Your task to perform on an android device: open app "Messages" Image 0: 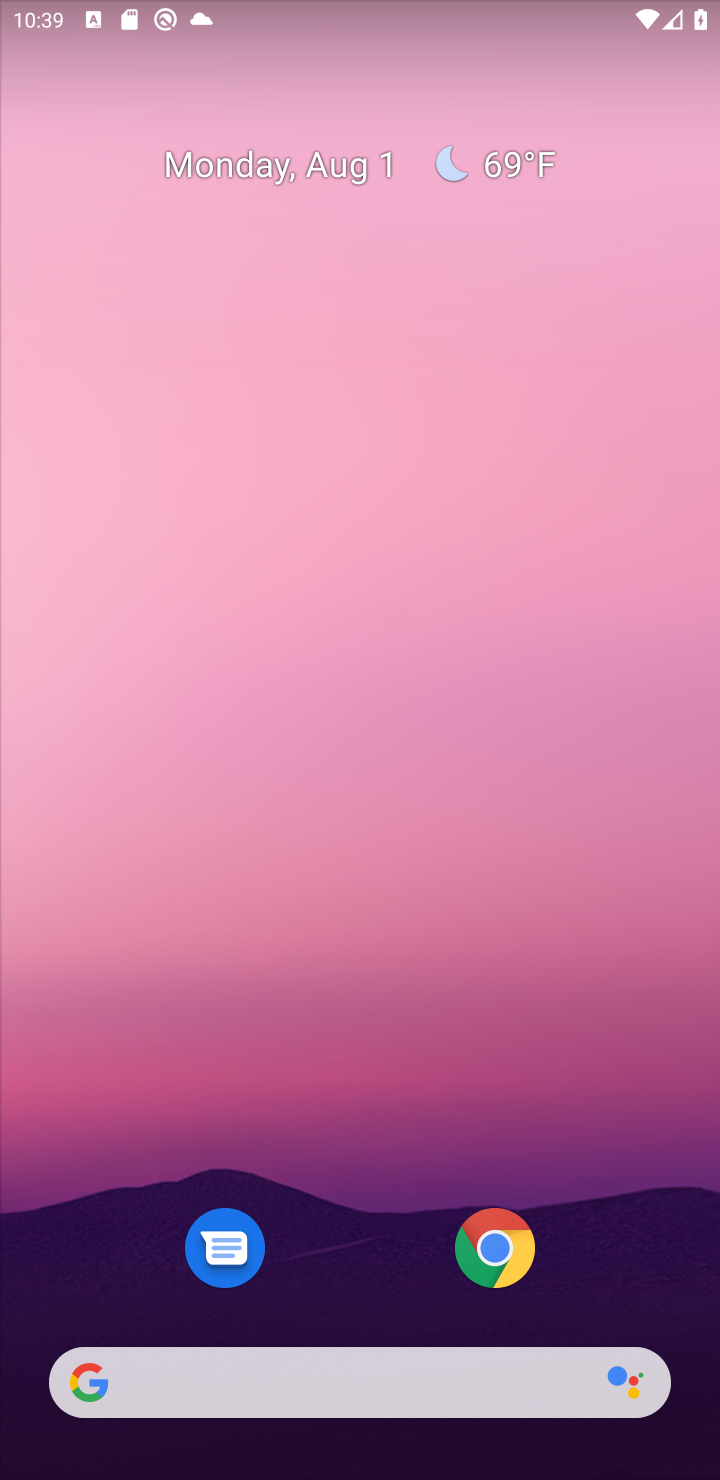
Step 0: drag from (432, 749) to (476, 302)
Your task to perform on an android device: open app "Messages" Image 1: 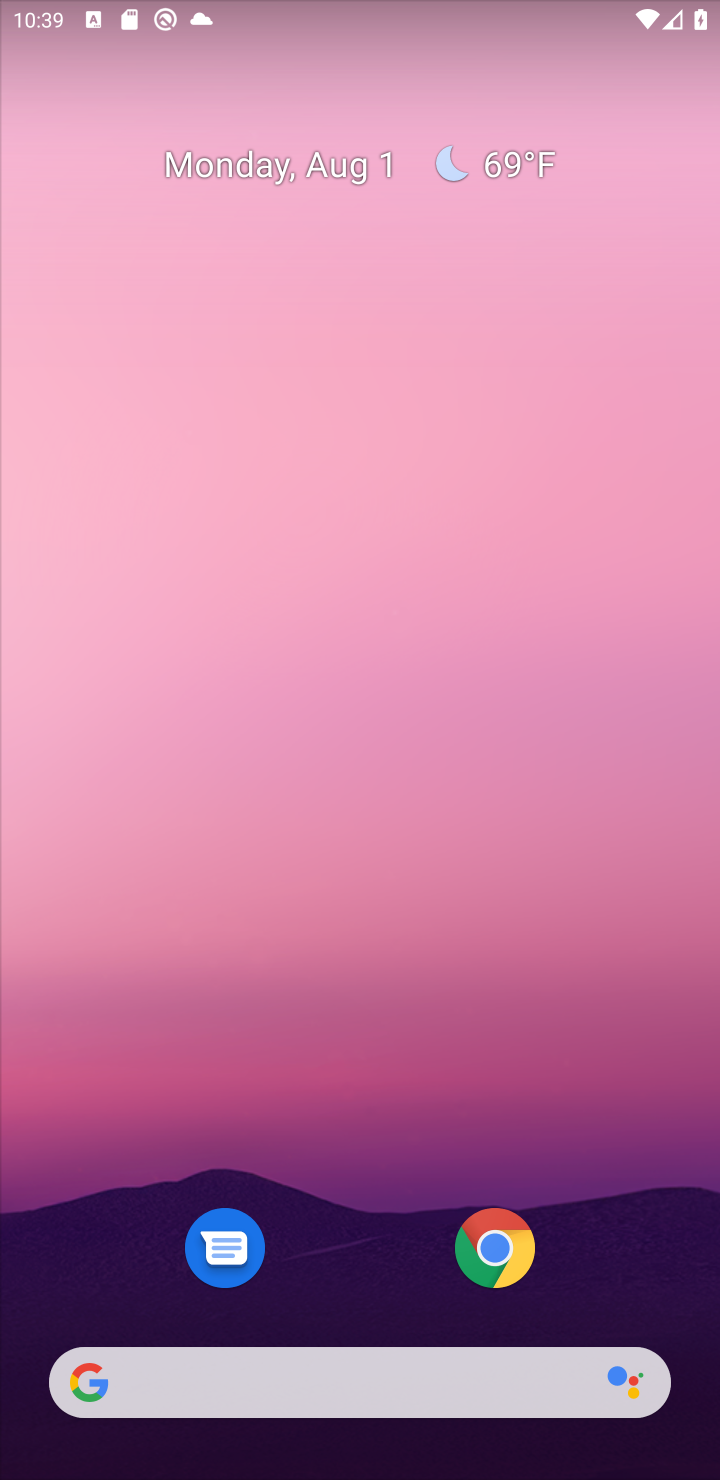
Step 1: drag from (327, 1268) to (355, 312)
Your task to perform on an android device: open app "Messages" Image 2: 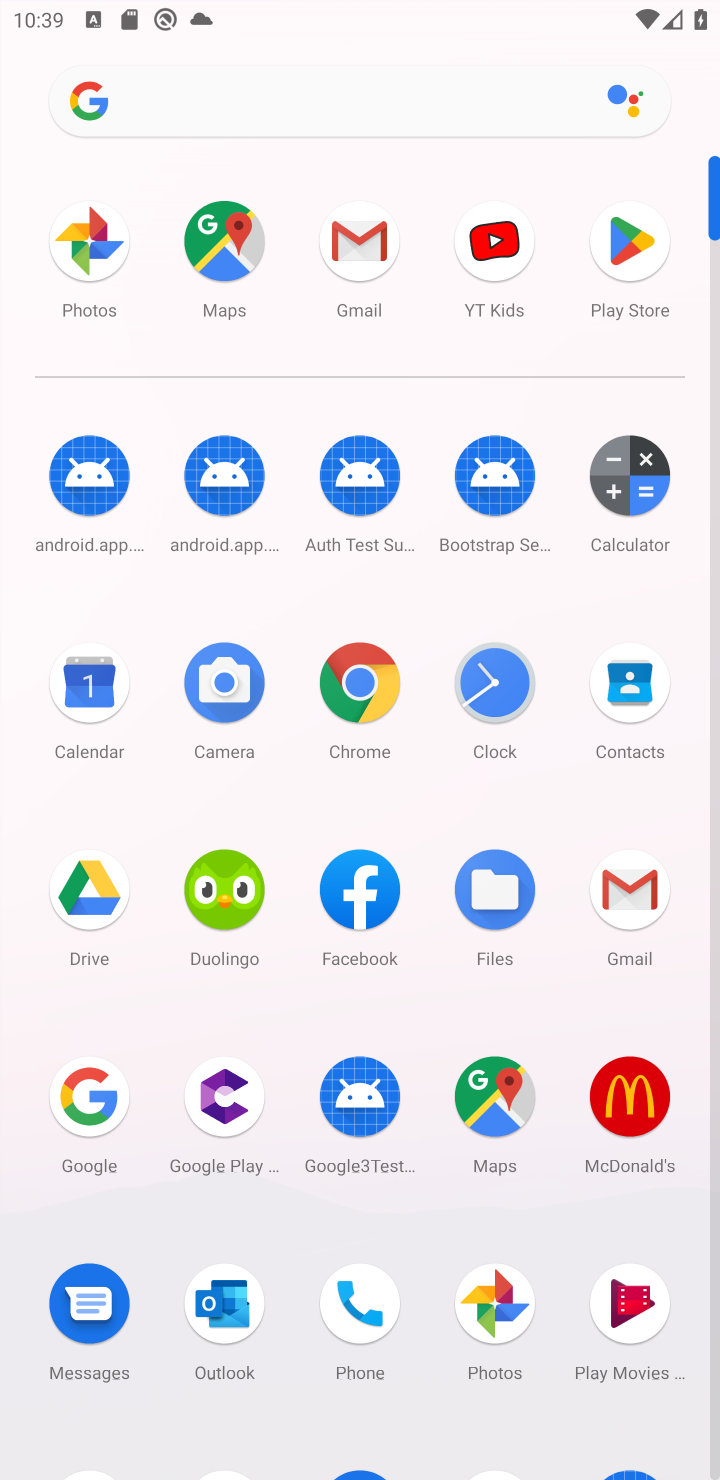
Step 2: click (636, 236)
Your task to perform on an android device: open app "Messages" Image 3: 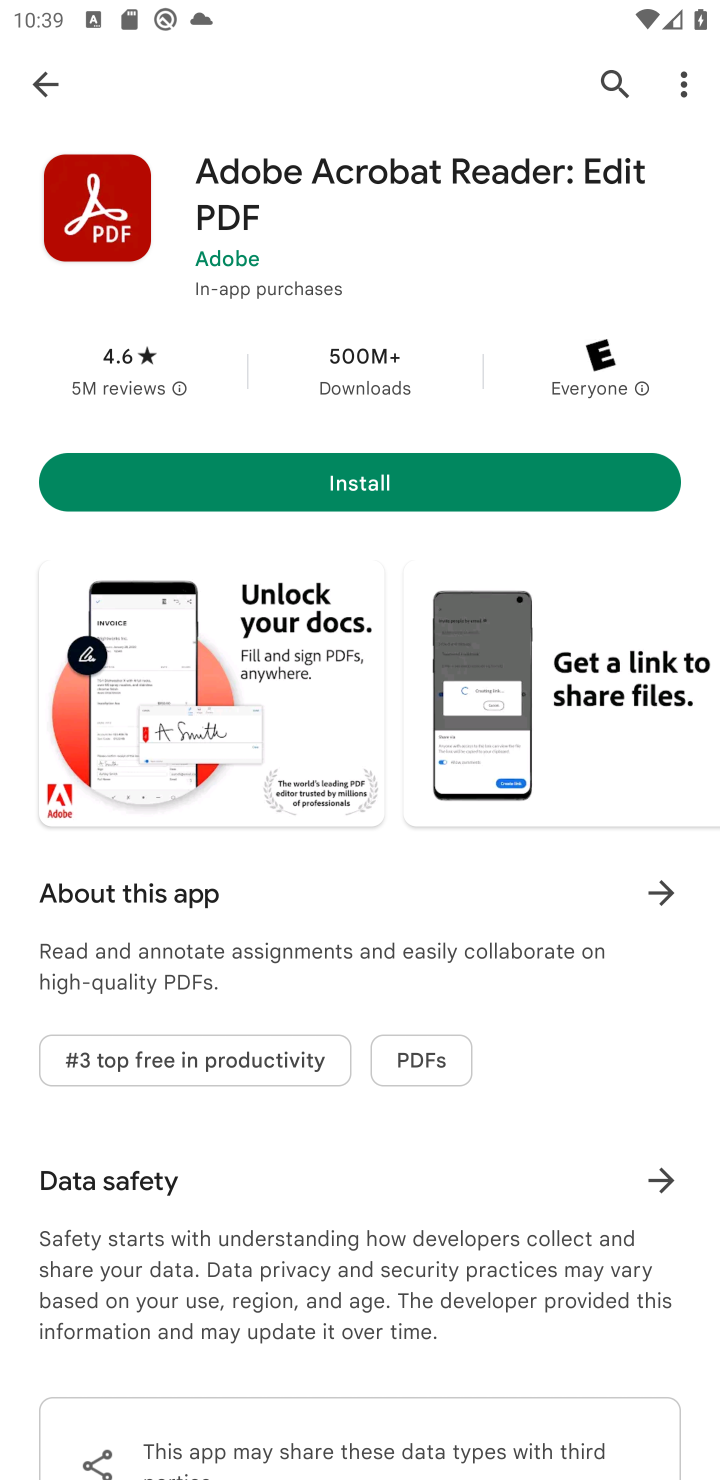
Step 3: click (611, 86)
Your task to perform on an android device: open app "Messages" Image 4: 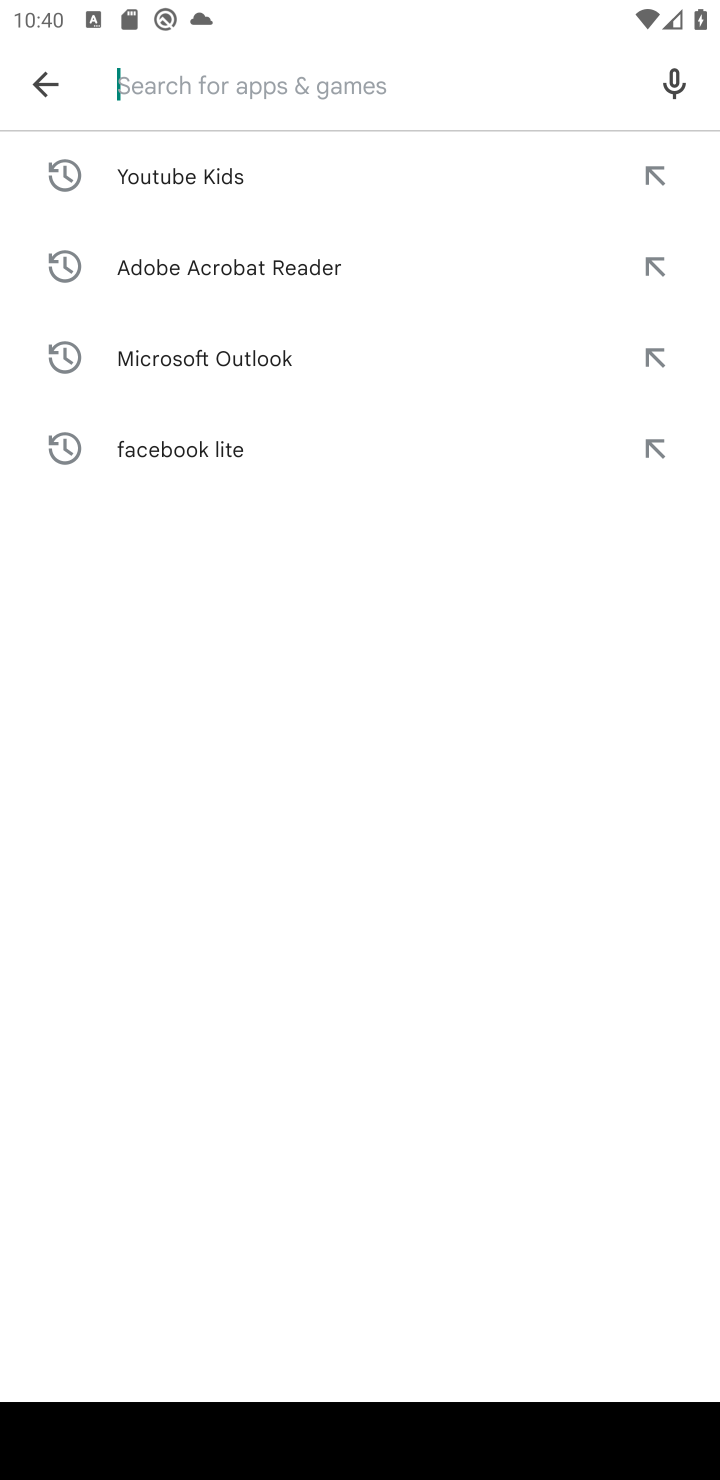
Step 4: type "Messages"
Your task to perform on an android device: open app "Messages" Image 5: 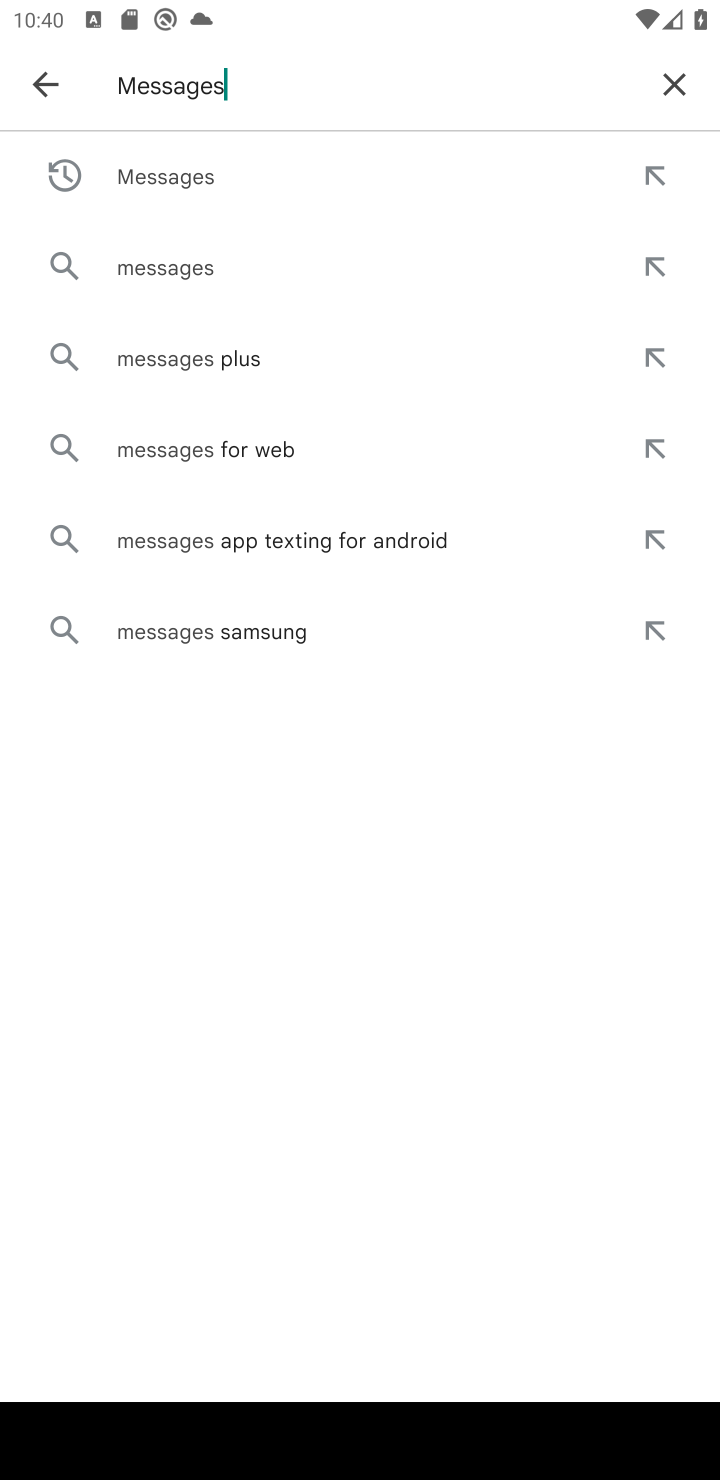
Step 5: click (420, 184)
Your task to perform on an android device: open app "Messages" Image 6: 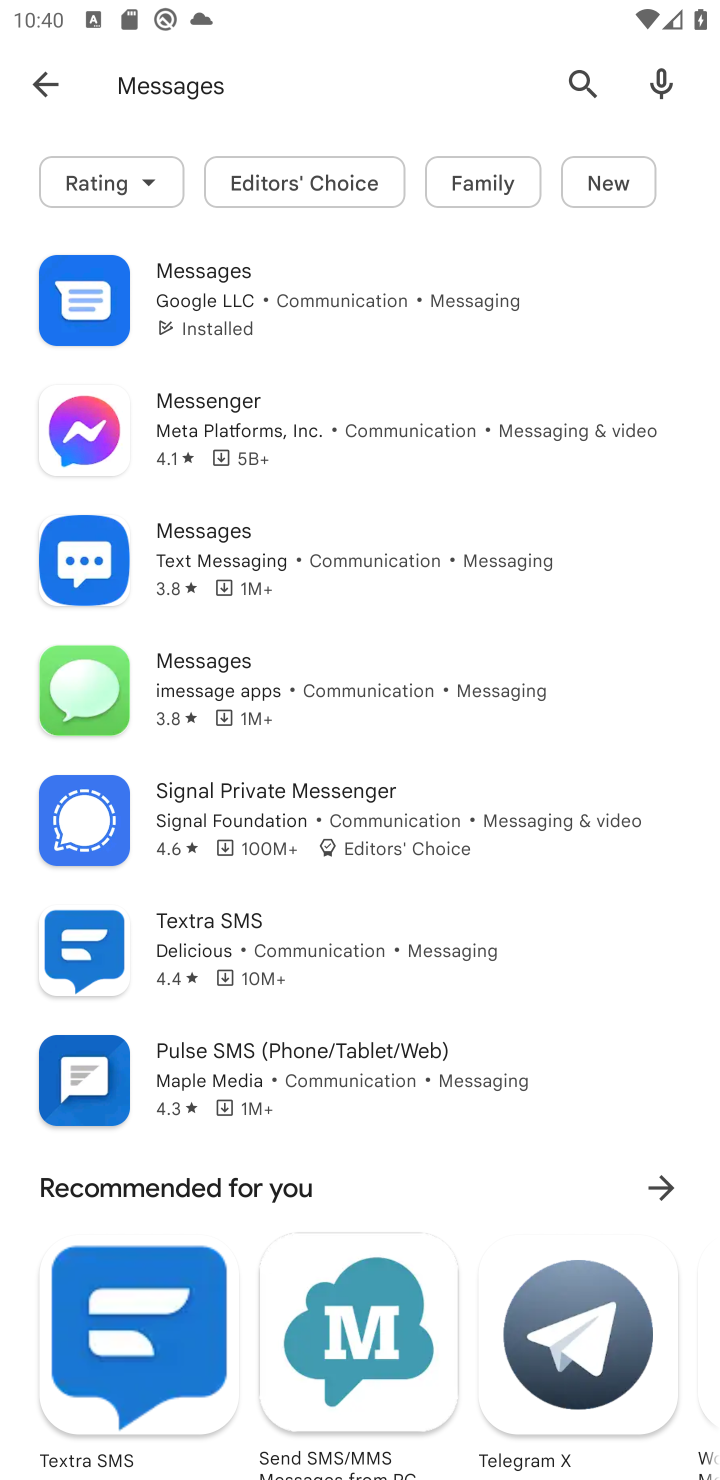
Step 6: click (241, 249)
Your task to perform on an android device: open app "Messages" Image 7: 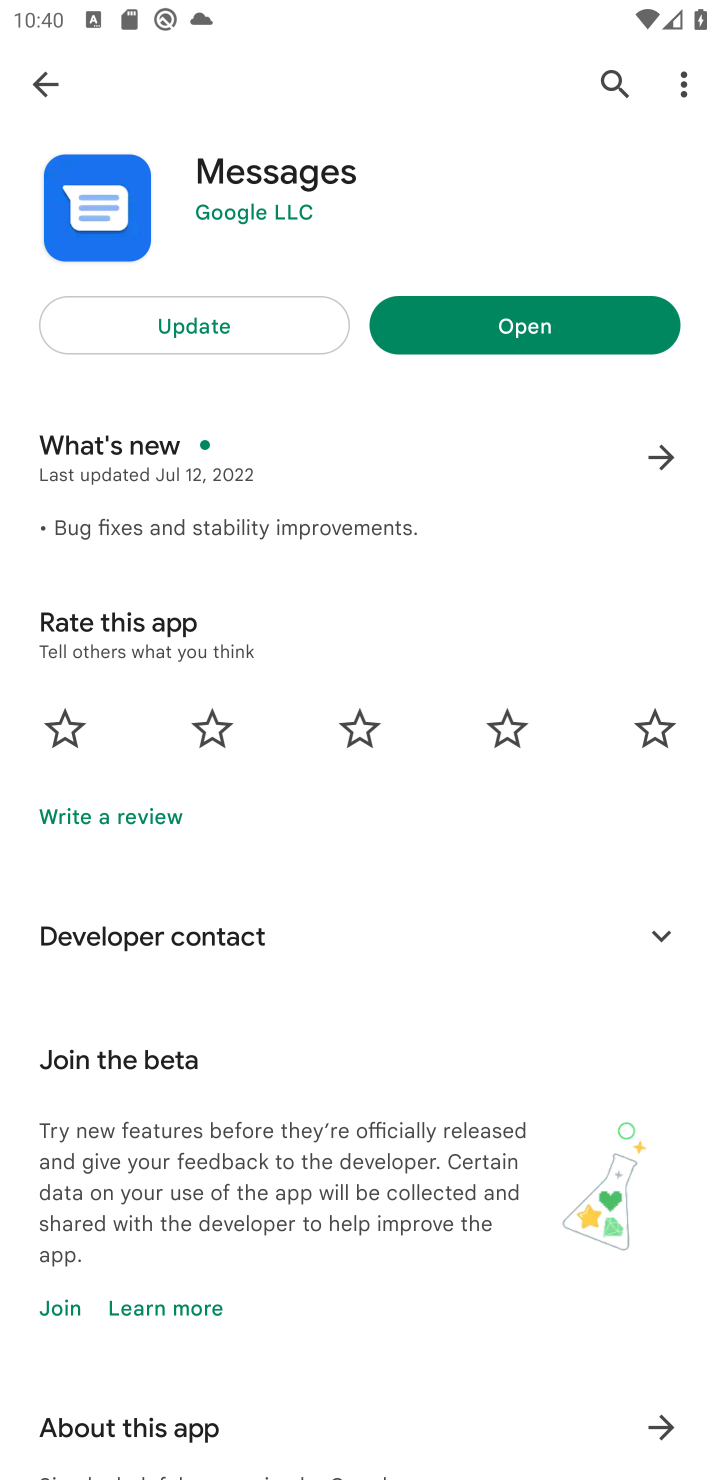
Step 7: click (522, 318)
Your task to perform on an android device: open app "Messages" Image 8: 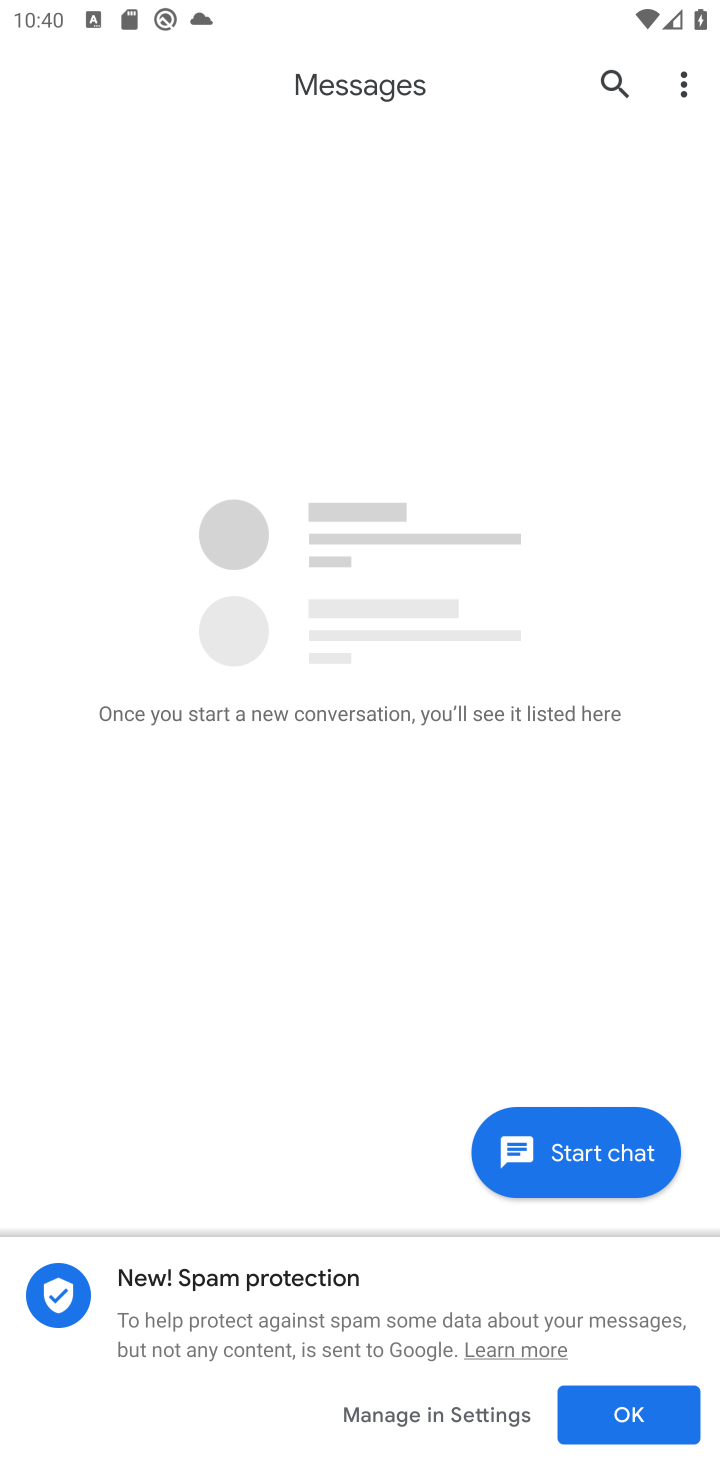
Step 8: task complete